Your task to perform on an android device: What's the price of the Sony TV? Image 0: 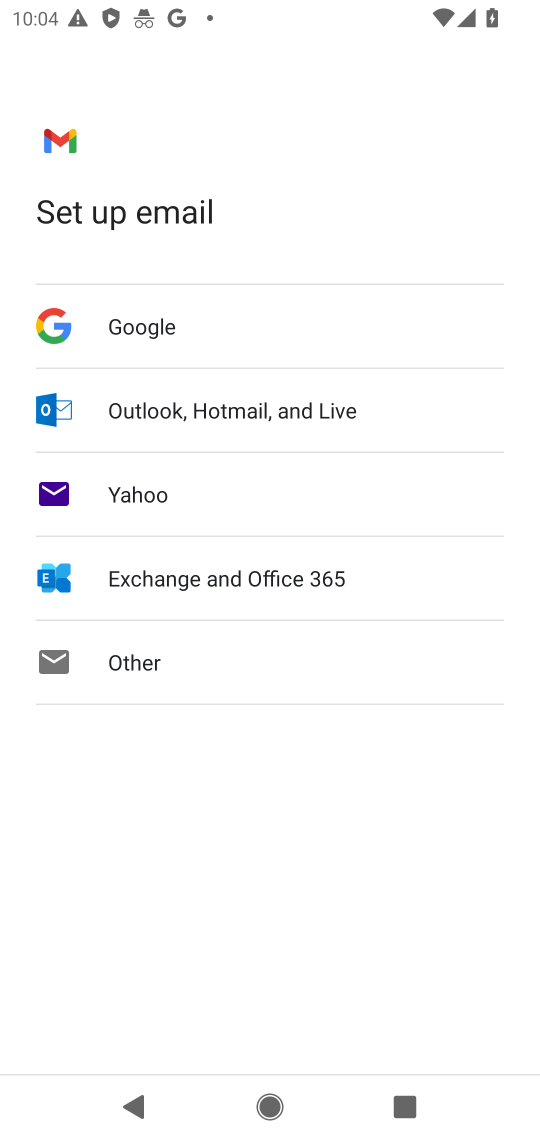
Step 0: press home button
Your task to perform on an android device: What's the price of the Sony TV? Image 1: 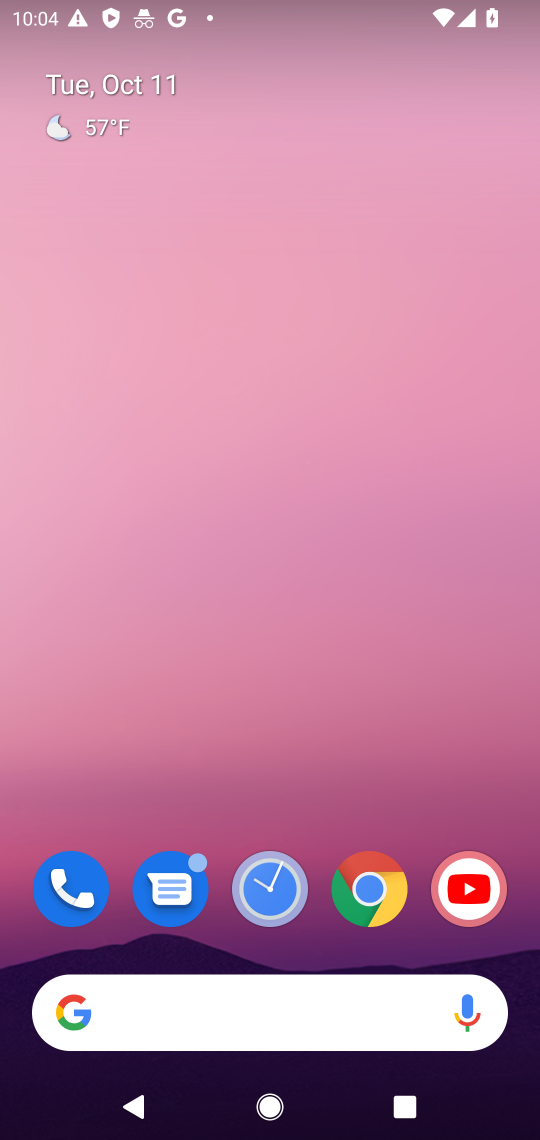
Step 1: drag from (220, 870) to (214, 28)
Your task to perform on an android device: What's the price of the Sony TV? Image 2: 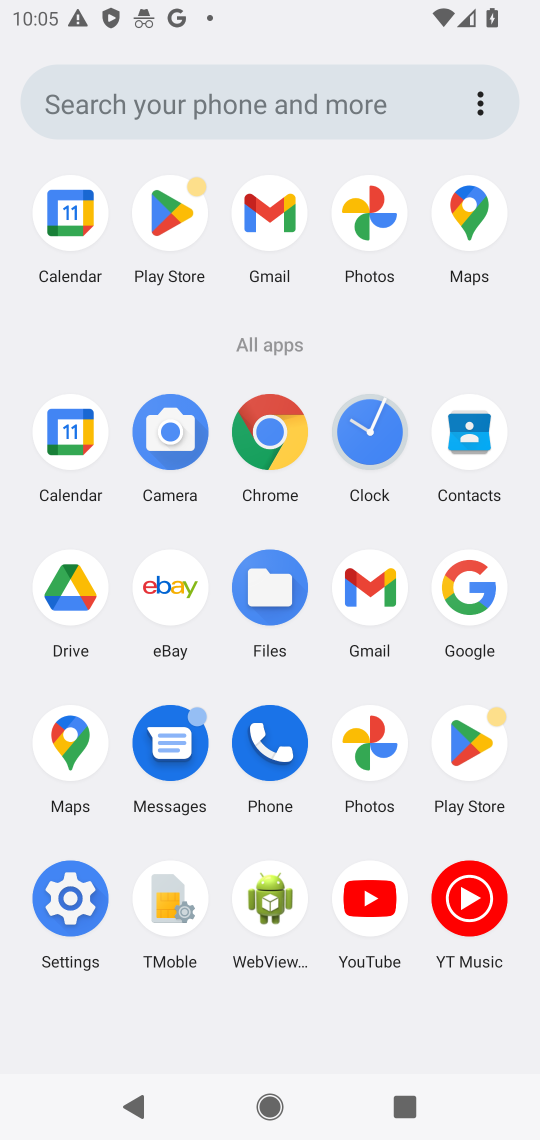
Step 2: click (461, 609)
Your task to perform on an android device: What's the price of the Sony TV? Image 3: 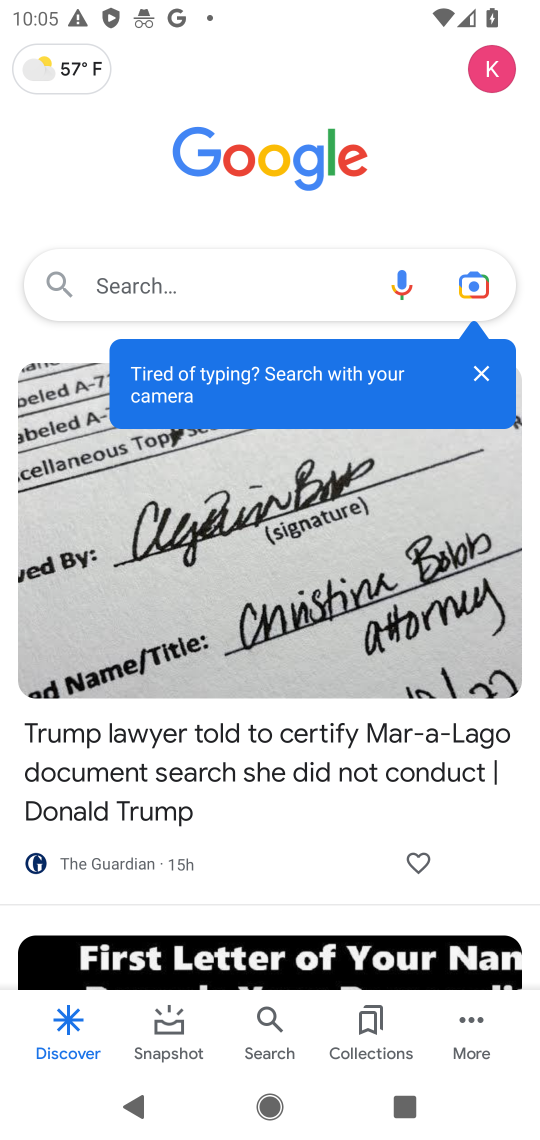
Step 3: click (219, 289)
Your task to perform on an android device: What's the price of the Sony TV? Image 4: 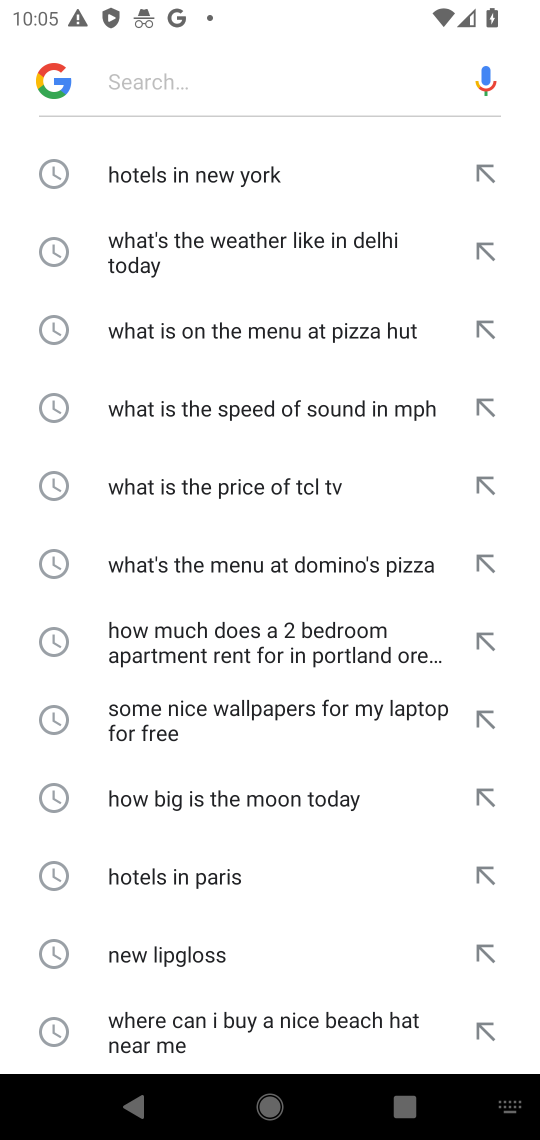
Step 4: click (190, 105)
Your task to perform on an android device: What's the price of the Sony TV? Image 5: 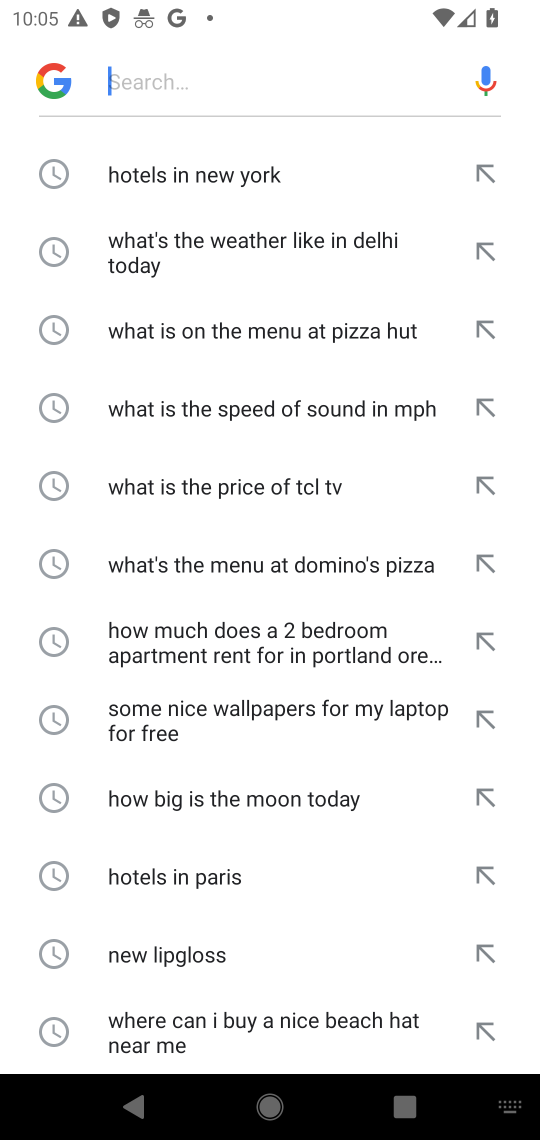
Step 5: click (187, 101)
Your task to perform on an android device: What's the price of the Sony TV? Image 6: 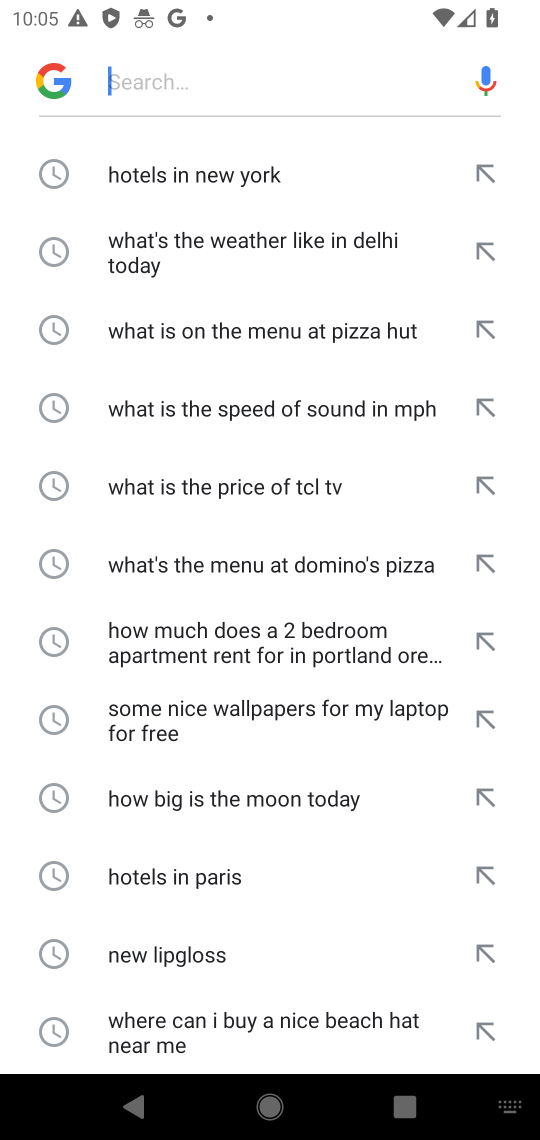
Step 6: type "What's the price of the Sony TV?"
Your task to perform on an android device: What's the price of the Sony TV? Image 7: 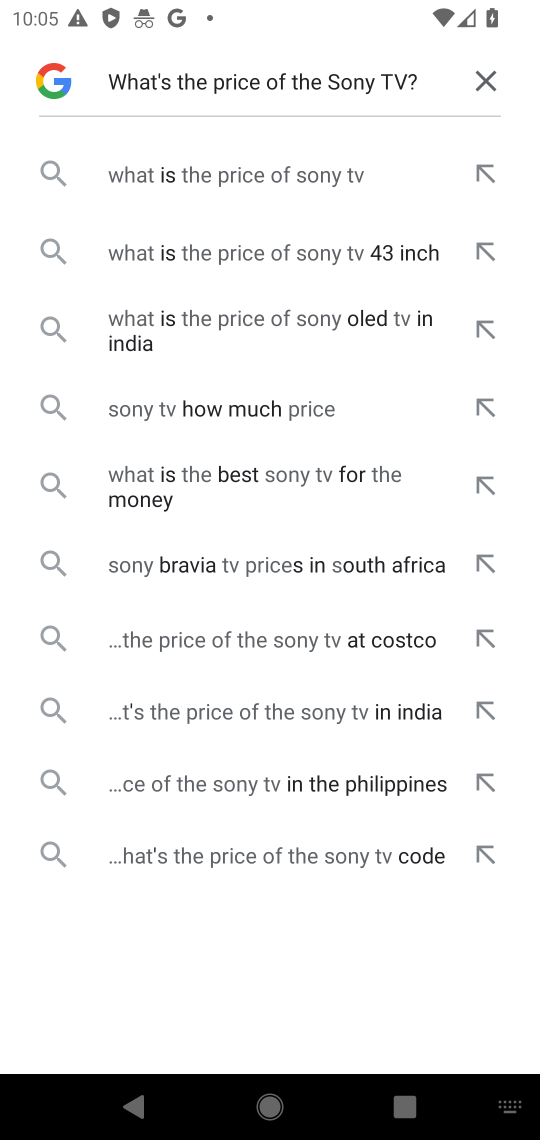
Step 7: click (289, 155)
Your task to perform on an android device: What's the price of the Sony TV? Image 8: 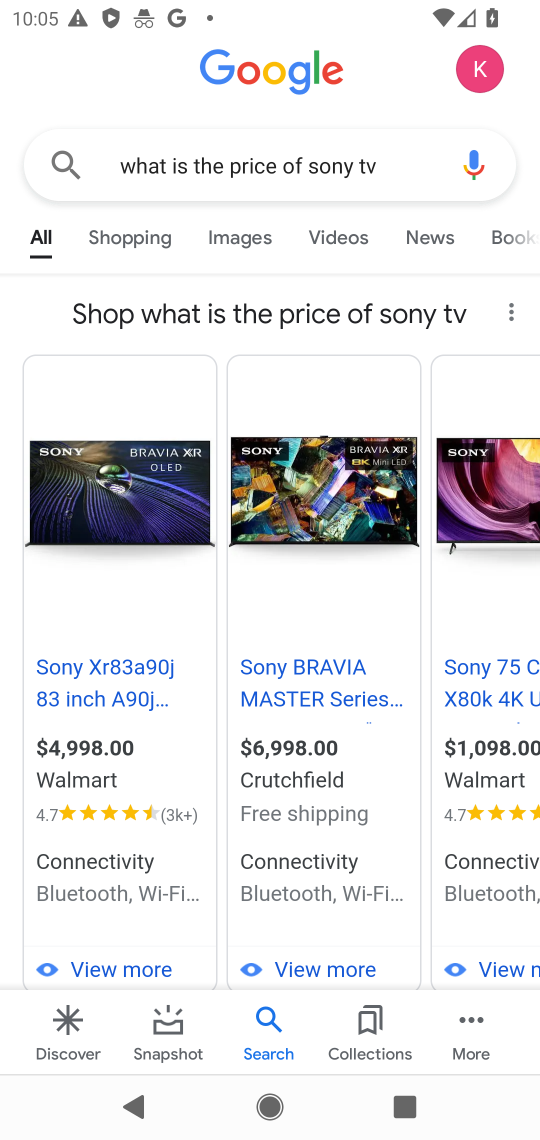
Step 8: task complete